Your task to perform on an android device: move an email to a new category in the gmail app Image 0: 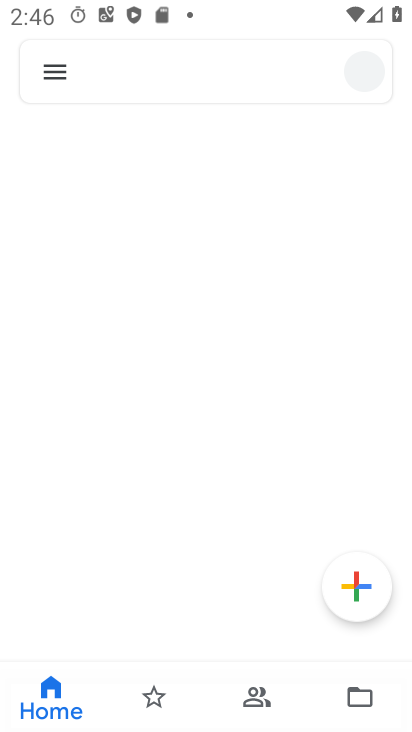
Step 0: drag from (307, 555) to (164, 70)
Your task to perform on an android device: move an email to a new category in the gmail app Image 1: 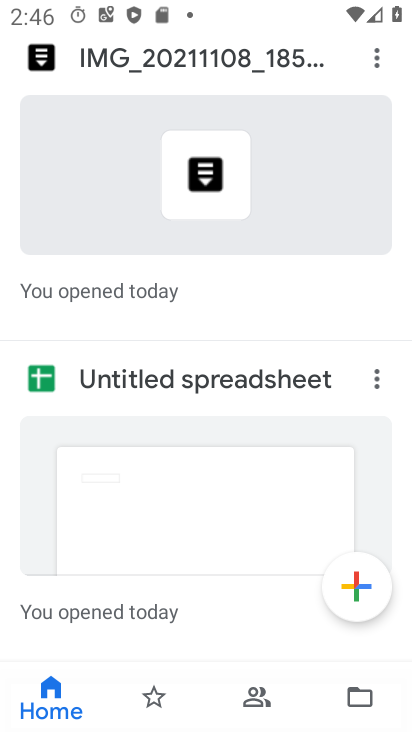
Step 1: press back button
Your task to perform on an android device: move an email to a new category in the gmail app Image 2: 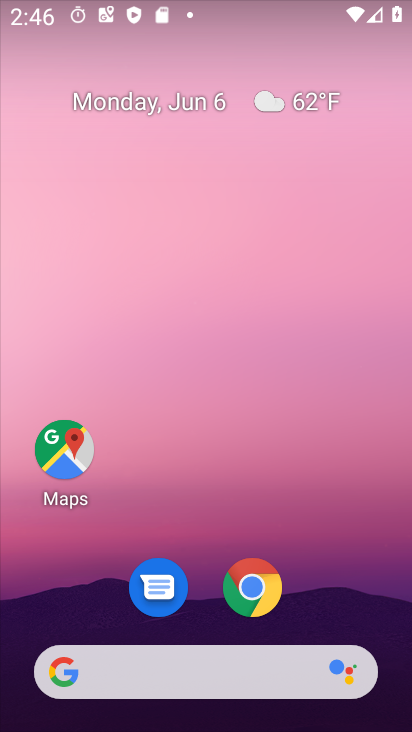
Step 2: drag from (351, 592) to (252, 22)
Your task to perform on an android device: move an email to a new category in the gmail app Image 3: 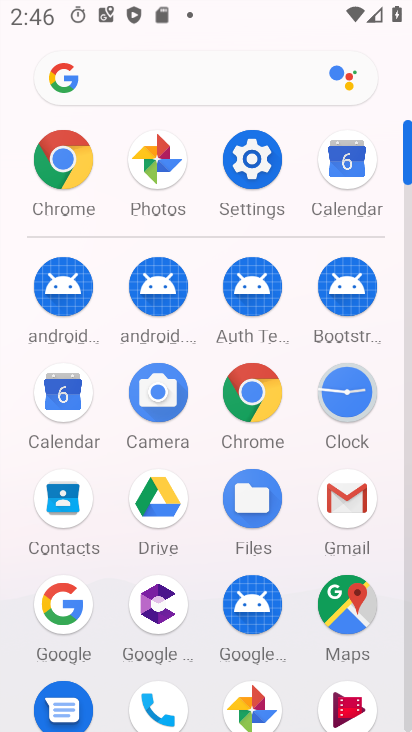
Step 3: click (346, 496)
Your task to perform on an android device: move an email to a new category in the gmail app Image 4: 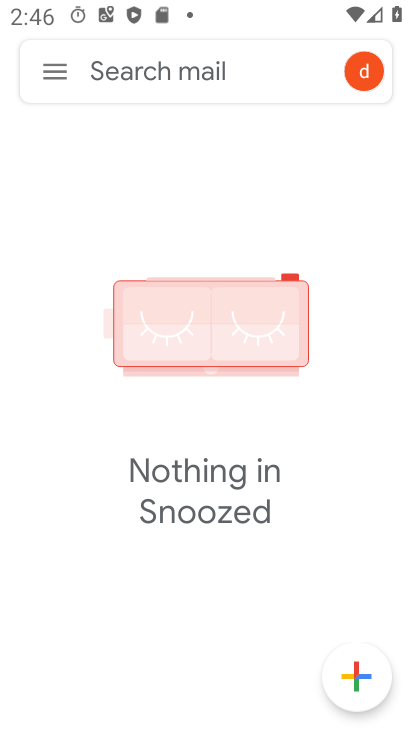
Step 4: click (22, 56)
Your task to perform on an android device: move an email to a new category in the gmail app Image 5: 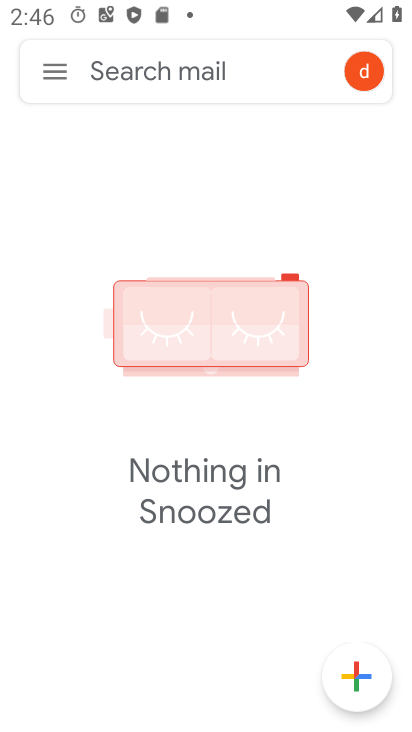
Step 5: click (59, 68)
Your task to perform on an android device: move an email to a new category in the gmail app Image 6: 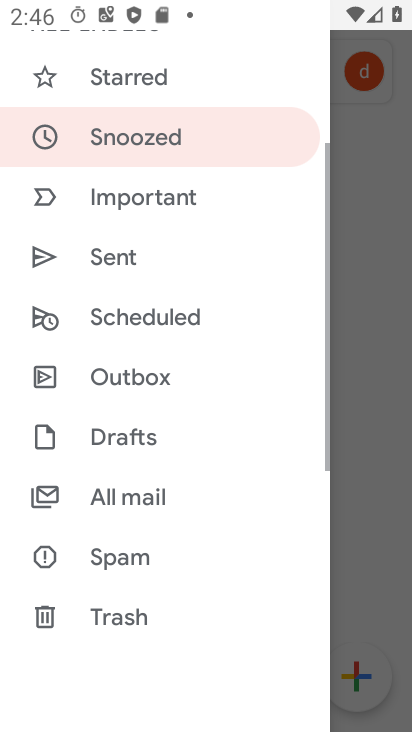
Step 6: drag from (177, 501) to (185, 166)
Your task to perform on an android device: move an email to a new category in the gmail app Image 7: 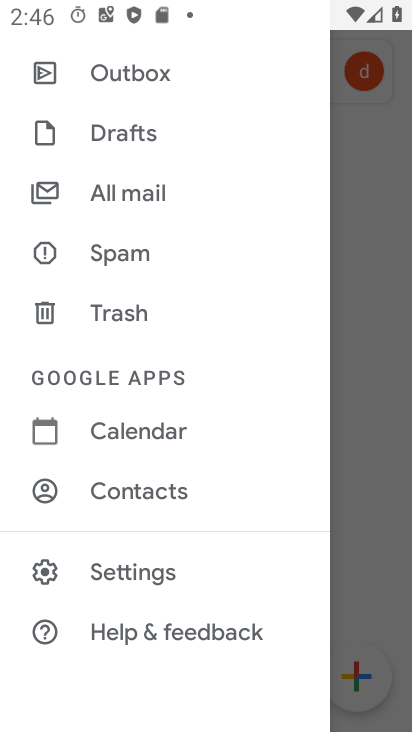
Step 7: click (161, 191)
Your task to perform on an android device: move an email to a new category in the gmail app Image 8: 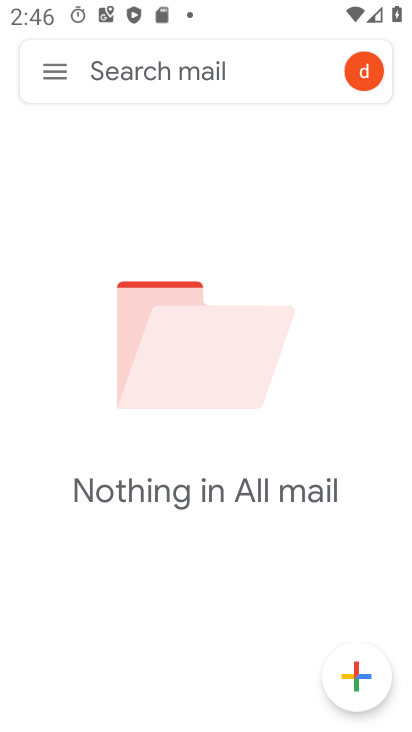
Step 8: click (67, 60)
Your task to perform on an android device: move an email to a new category in the gmail app Image 9: 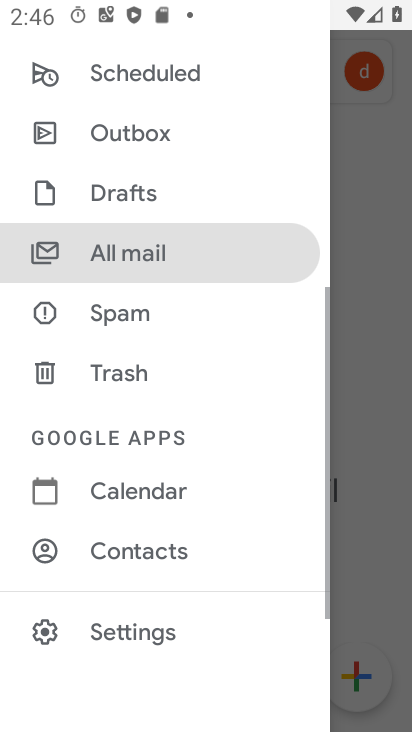
Step 9: drag from (208, 145) to (290, 659)
Your task to perform on an android device: move an email to a new category in the gmail app Image 10: 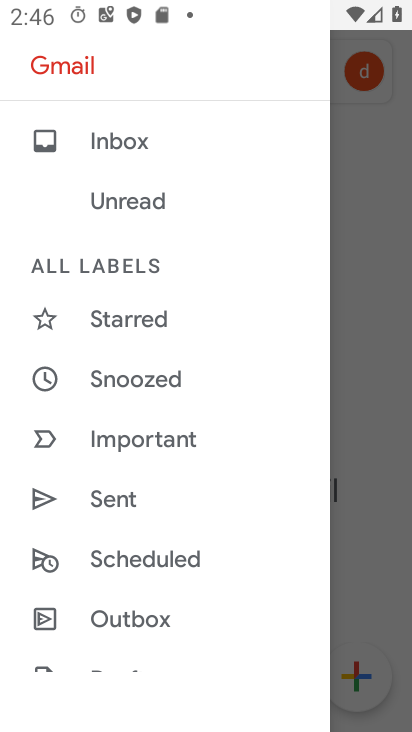
Step 10: click (158, 304)
Your task to perform on an android device: move an email to a new category in the gmail app Image 11: 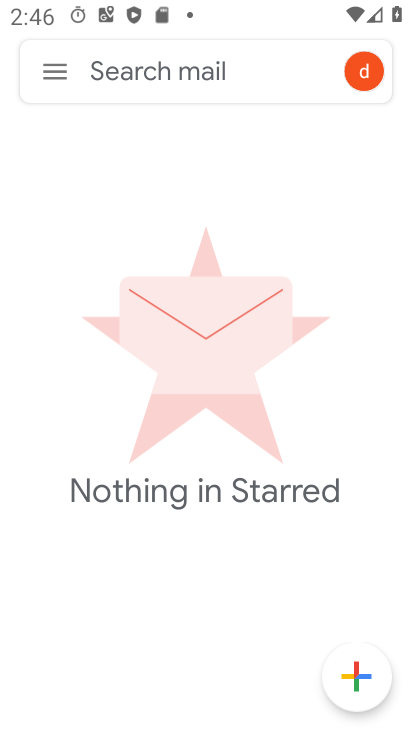
Step 11: task complete